Your task to perform on an android device: find which apps use the phone's location Image 0: 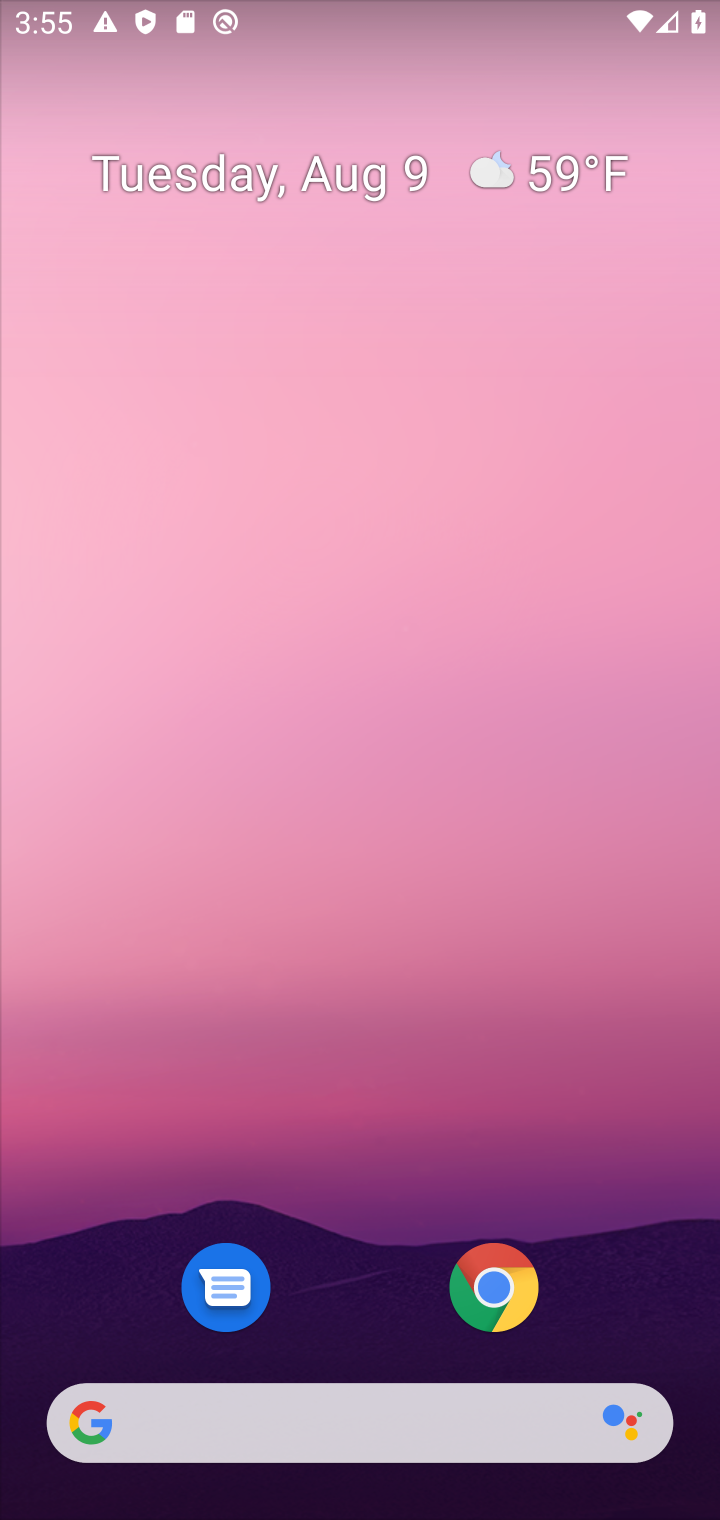
Step 0: drag from (383, 1181) to (433, 271)
Your task to perform on an android device: find which apps use the phone's location Image 1: 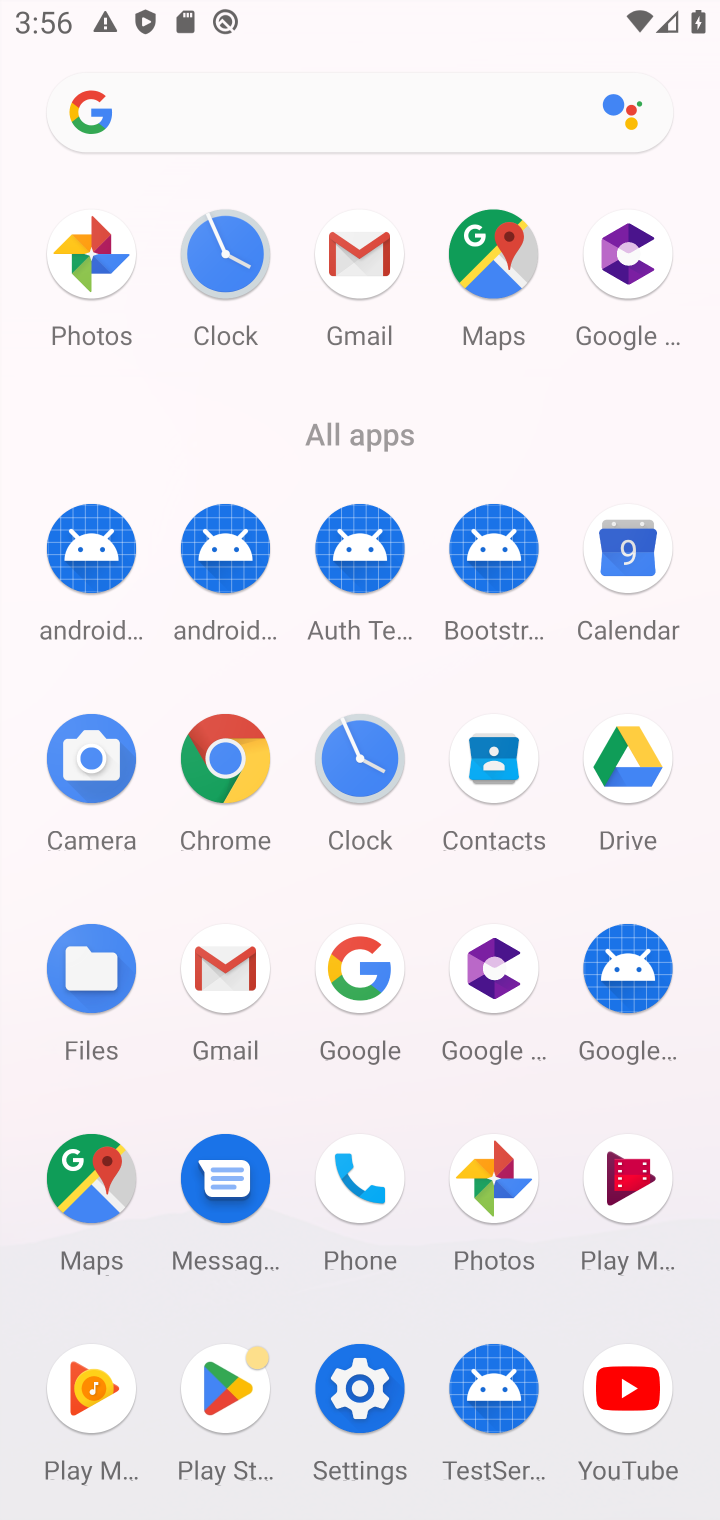
Step 1: click (341, 1358)
Your task to perform on an android device: find which apps use the phone's location Image 2: 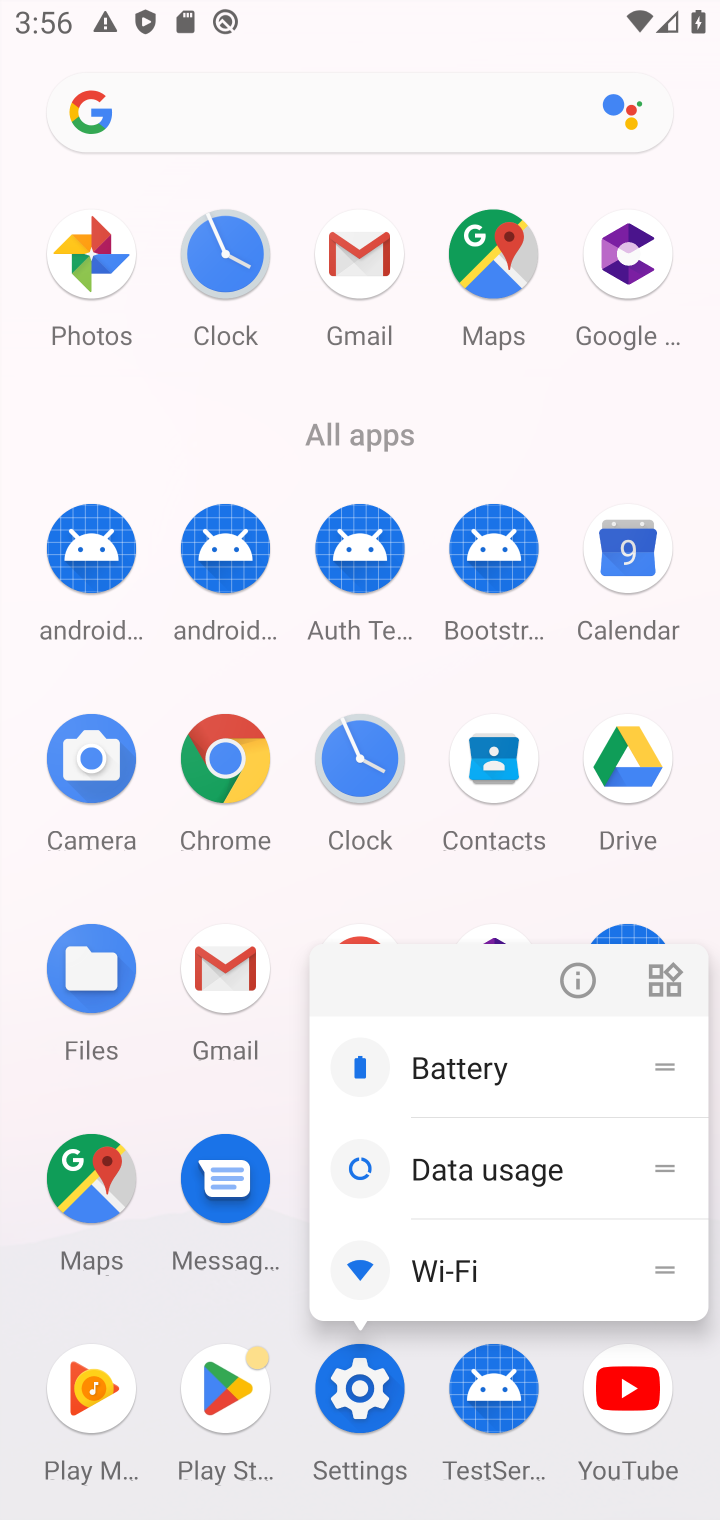
Step 2: click (374, 1368)
Your task to perform on an android device: find which apps use the phone's location Image 3: 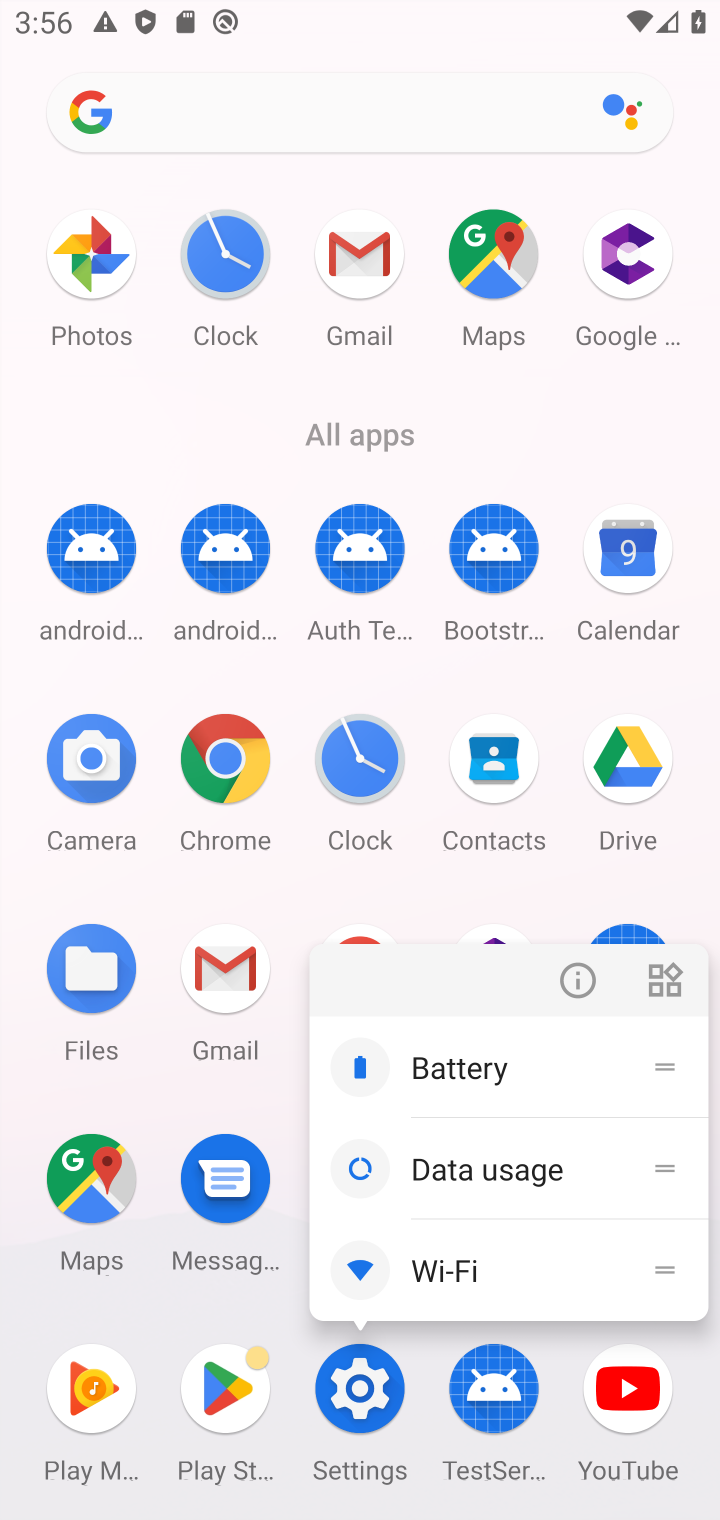
Step 3: click (364, 1397)
Your task to perform on an android device: find which apps use the phone's location Image 4: 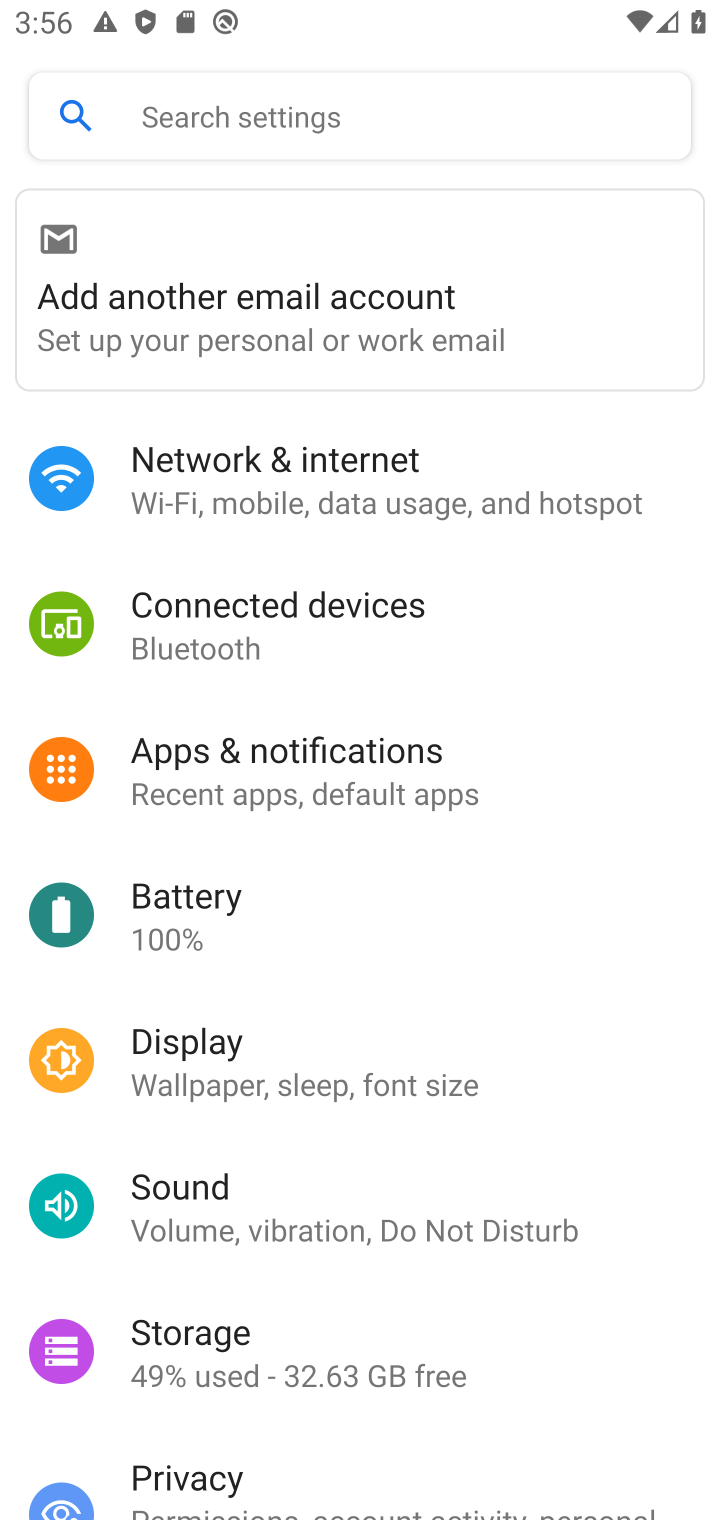
Step 4: task complete